Your task to perform on an android device: see creations saved in the google photos Image 0: 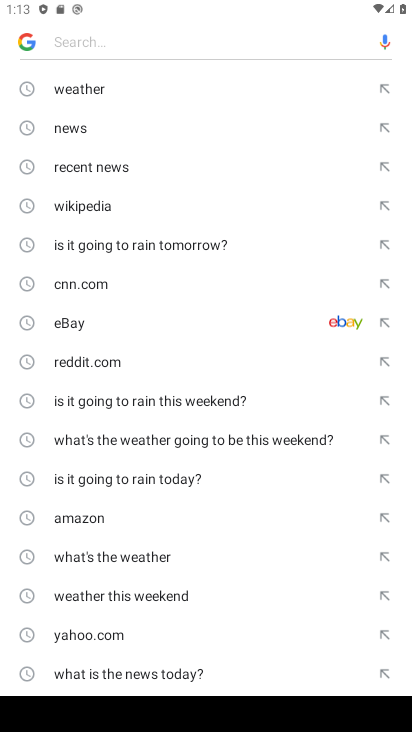
Step 0: press home button
Your task to perform on an android device: see creations saved in the google photos Image 1: 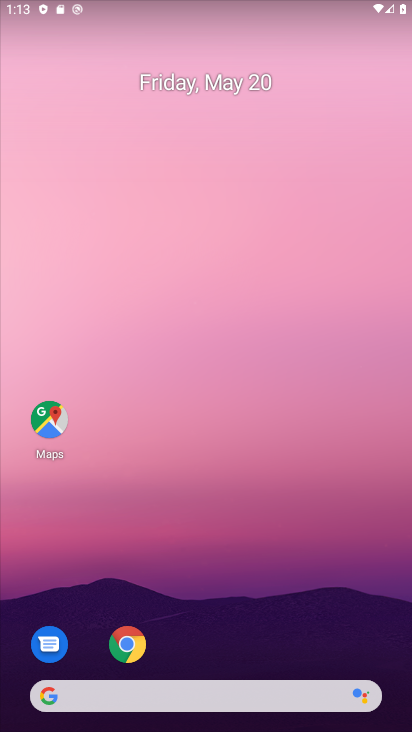
Step 1: drag from (159, 656) to (186, 221)
Your task to perform on an android device: see creations saved in the google photos Image 2: 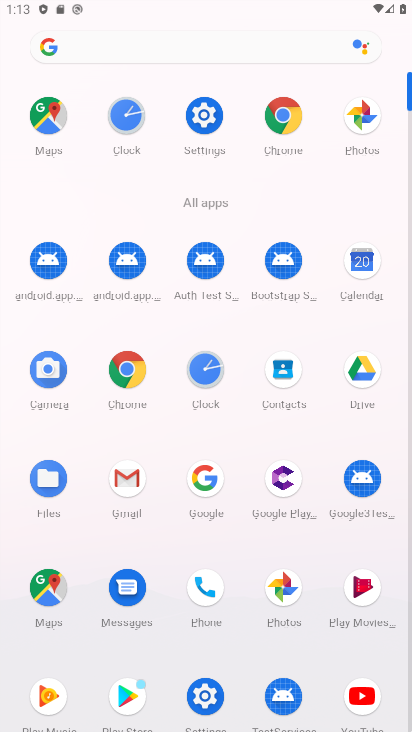
Step 2: click (362, 110)
Your task to perform on an android device: see creations saved in the google photos Image 3: 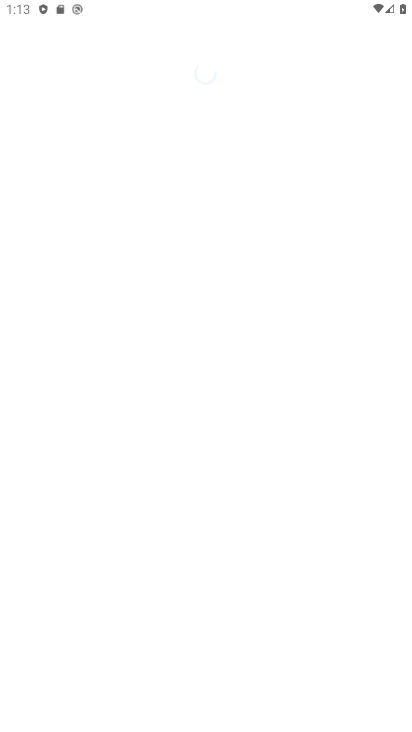
Step 3: click (362, 110)
Your task to perform on an android device: see creations saved in the google photos Image 4: 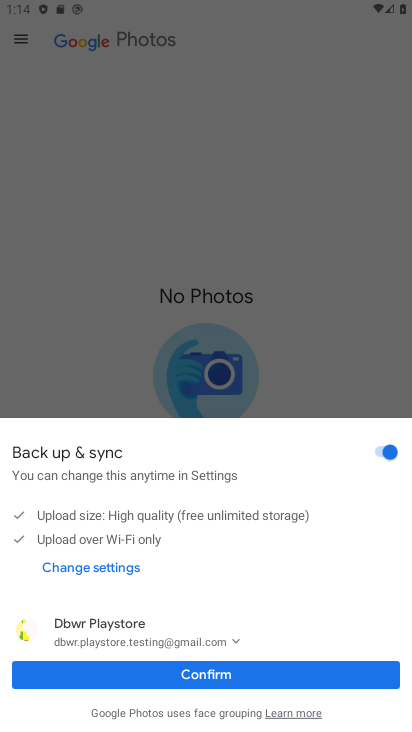
Step 4: task complete